Your task to perform on an android device: manage bookmarks in the chrome app Image 0: 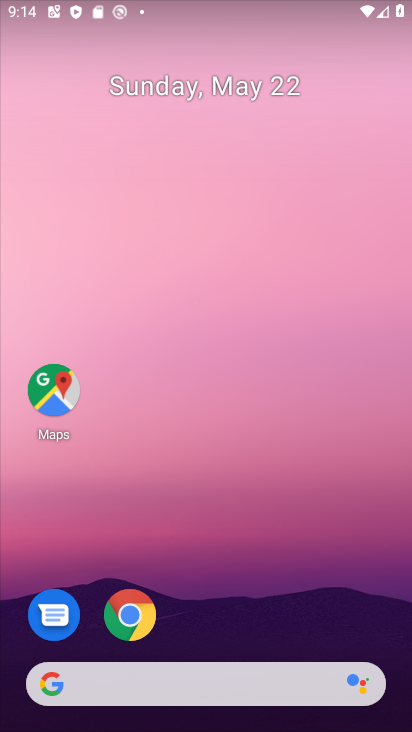
Step 0: drag from (279, 592) to (331, 246)
Your task to perform on an android device: manage bookmarks in the chrome app Image 1: 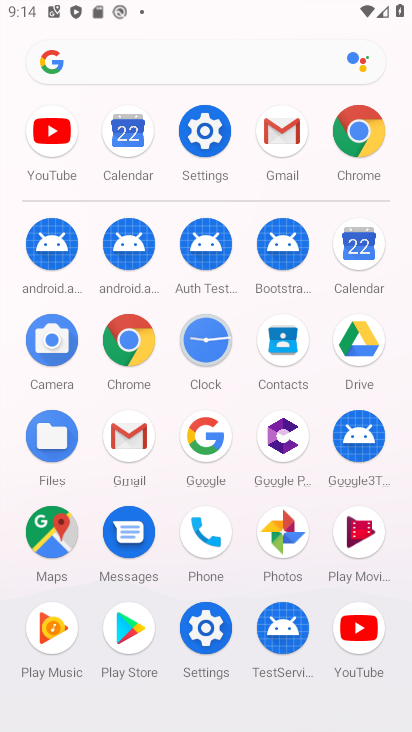
Step 1: click (370, 125)
Your task to perform on an android device: manage bookmarks in the chrome app Image 2: 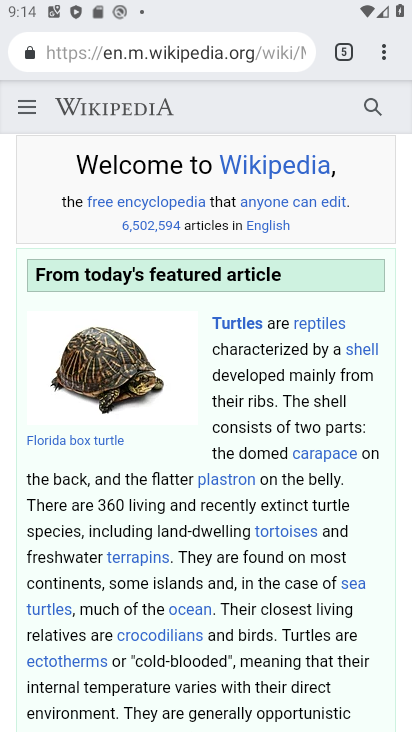
Step 2: click (390, 52)
Your task to perform on an android device: manage bookmarks in the chrome app Image 3: 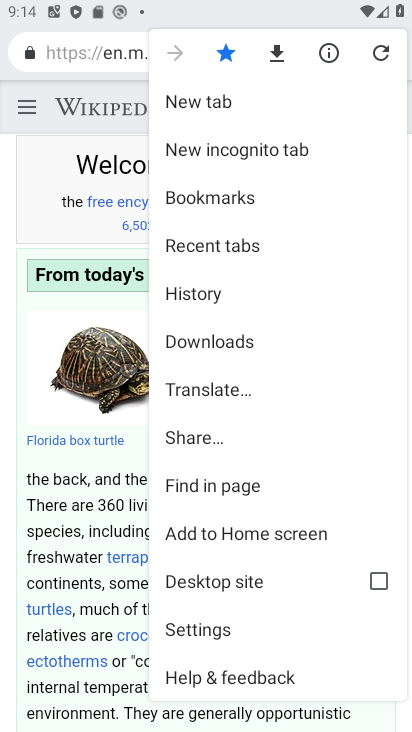
Step 3: drag from (204, 632) to (252, 198)
Your task to perform on an android device: manage bookmarks in the chrome app Image 4: 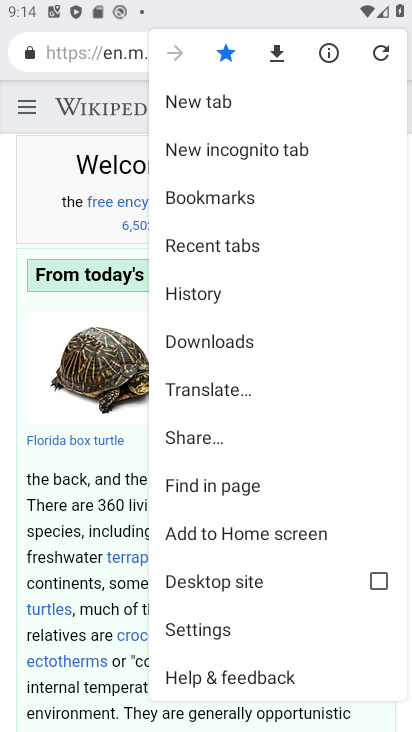
Step 4: click (252, 197)
Your task to perform on an android device: manage bookmarks in the chrome app Image 5: 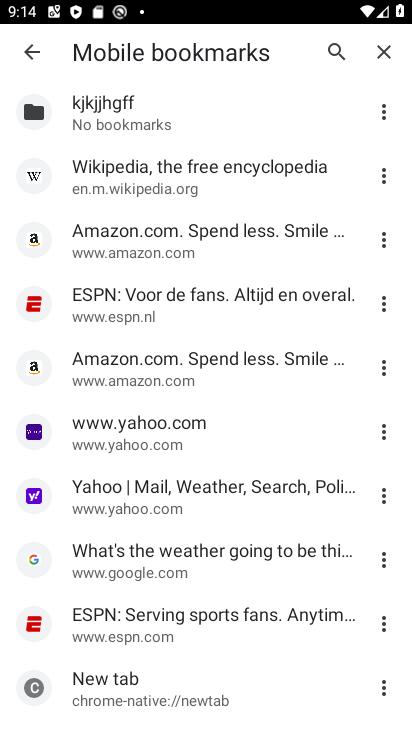
Step 5: click (179, 247)
Your task to perform on an android device: manage bookmarks in the chrome app Image 6: 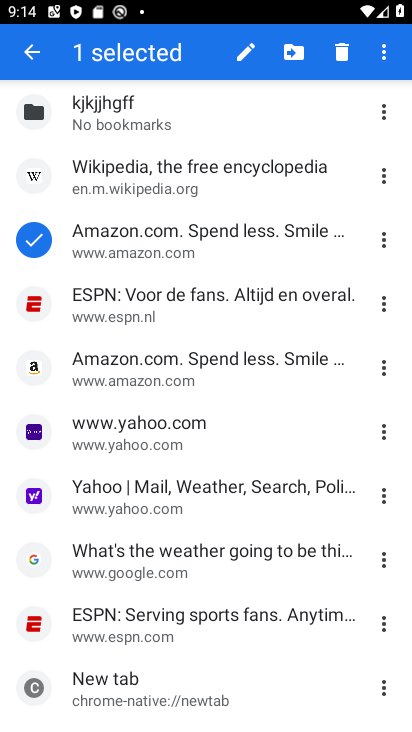
Step 6: click (283, 48)
Your task to perform on an android device: manage bookmarks in the chrome app Image 7: 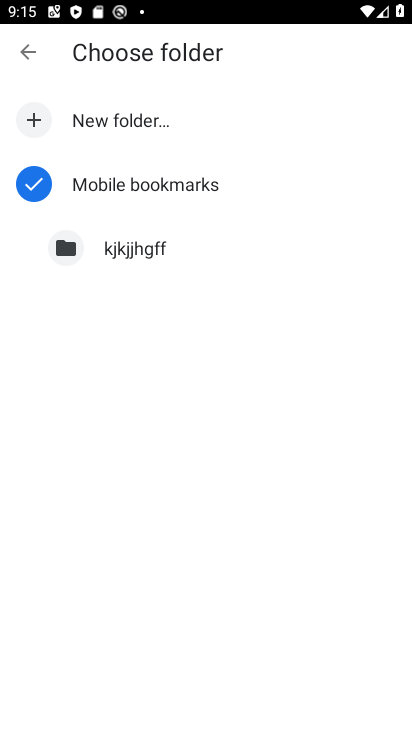
Step 7: click (166, 240)
Your task to perform on an android device: manage bookmarks in the chrome app Image 8: 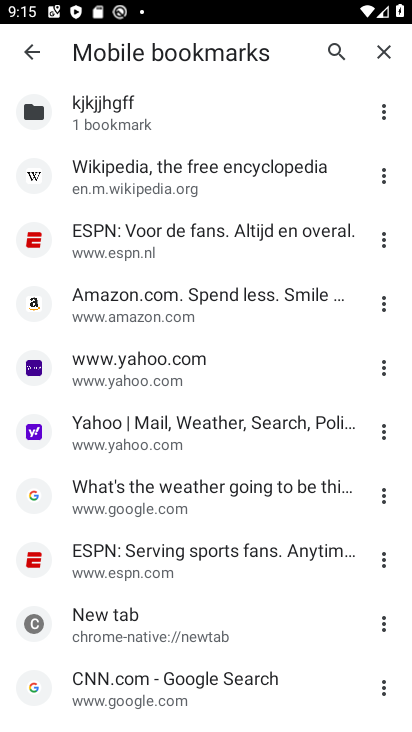
Step 8: task complete